Your task to perform on an android device: clear all cookies in the chrome app Image 0: 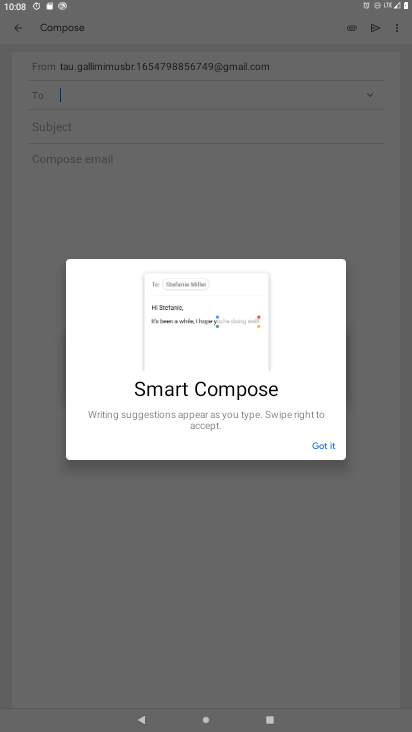
Step 0: press home button
Your task to perform on an android device: clear all cookies in the chrome app Image 1: 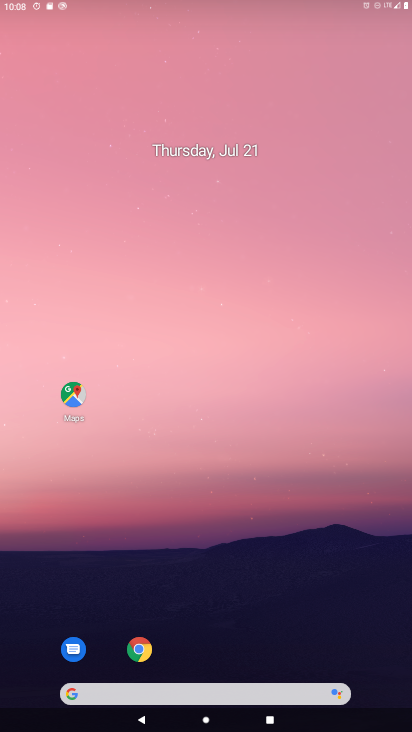
Step 1: drag from (379, 630) to (171, 145)
Your task to perform on an android device: clear all cookies in the chrome app Image 2: 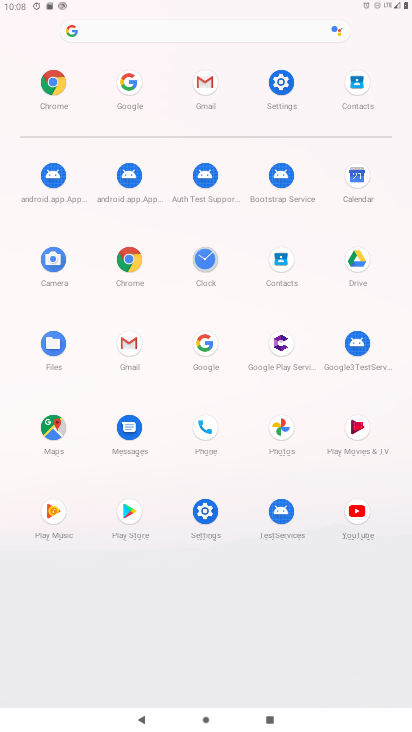
Step 2: click (116, 261)
Your task to perform on an android device: clear all cookies in the chrome app Image 3: 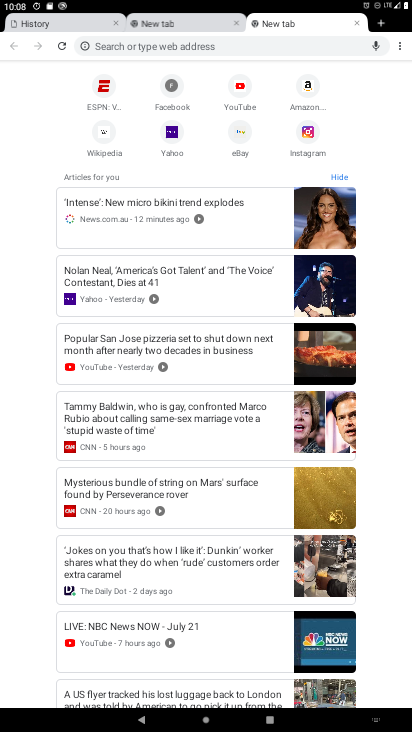
Step 3: click (401, 44)
Your task to perform on an android device: clear all cookies in the chrome app Image 4: 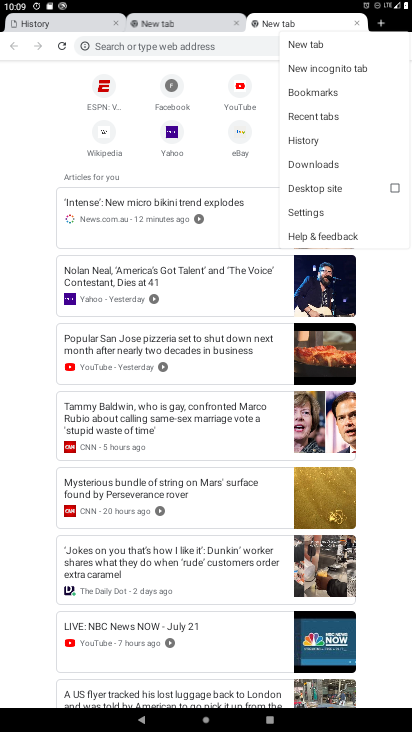
Step 4: click (306, 139)
Your task to perform on an android device: clear all cookies in the chrome app Image 5: 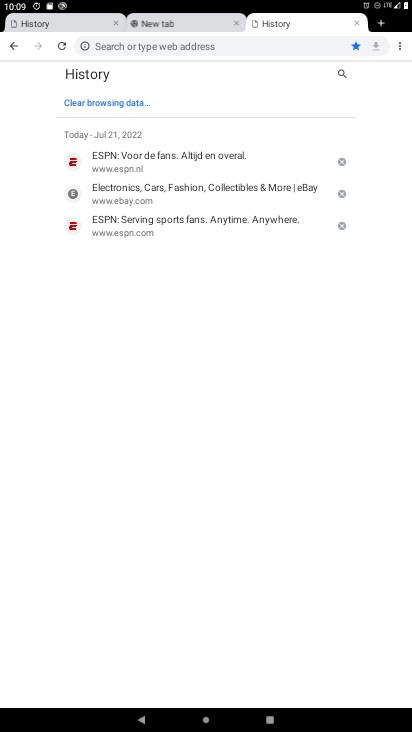
Step 5: click (83, 104)
Your task to perform on an android device: clear all cookies in the chrome app Image 6: 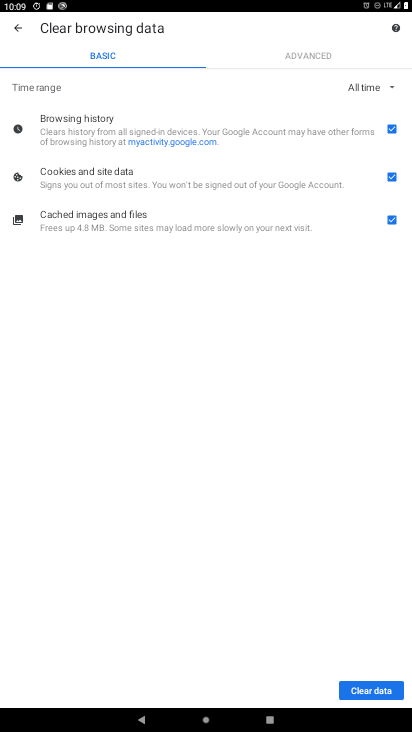
Step 6: click (374, 692)
Your task to perform on an android device: clear all cookies in the chrome app Image 7: 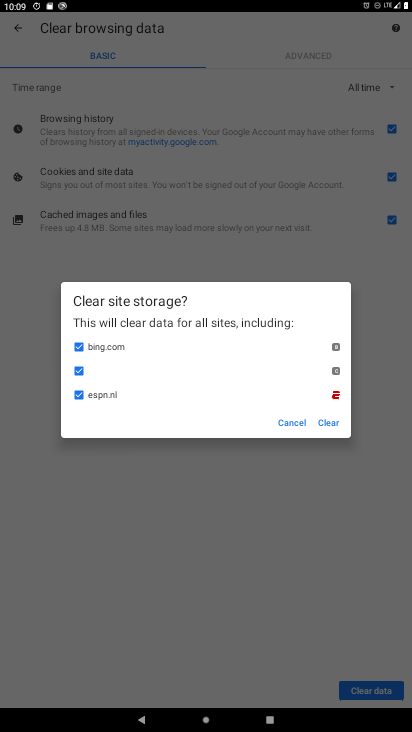
Step 7: click (326, 429)
Your task to perform on an android device: clear all cookies in the chrome app Image 8: 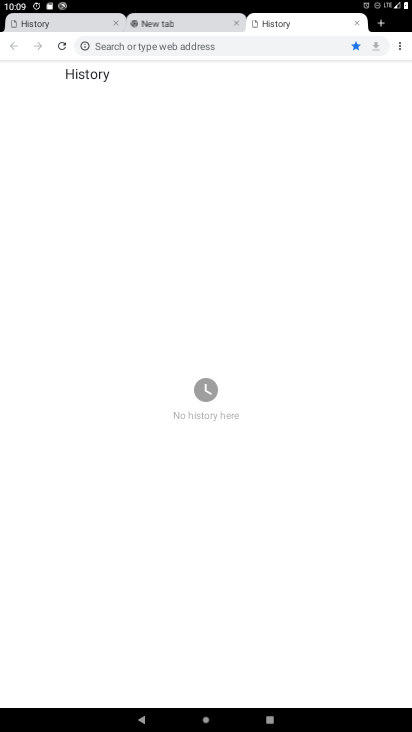
Step 8: task complete